Your task to perform on an android device: check battery use Image 0: 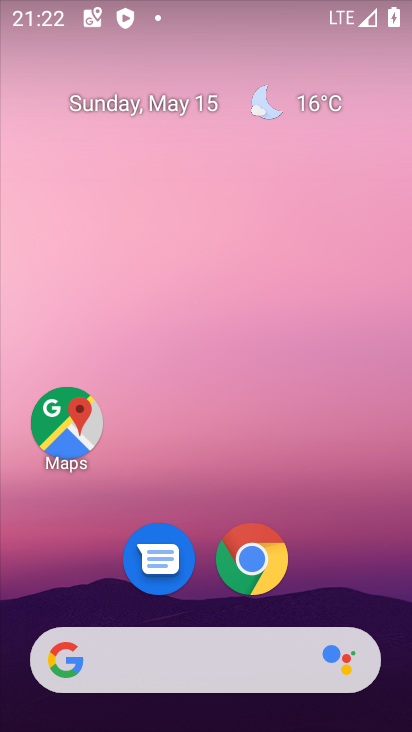
Step 0: drag from (183, 490) to (87, 23)
Your task to perform on an android device: check battery use Image 1: 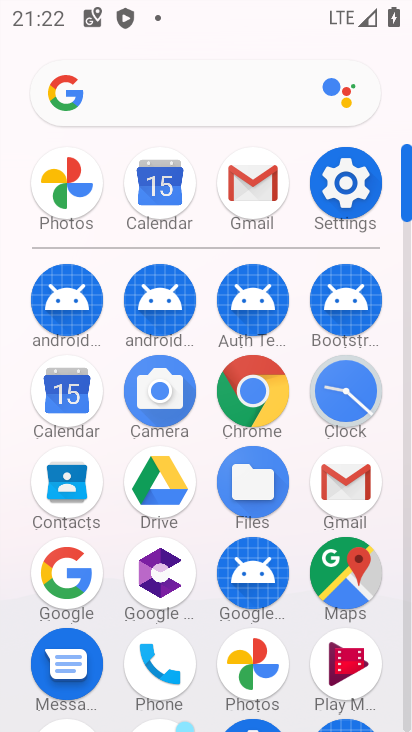
Step 1: click (342, 189)
Your task to perform on an android device: check battery use Image 2: 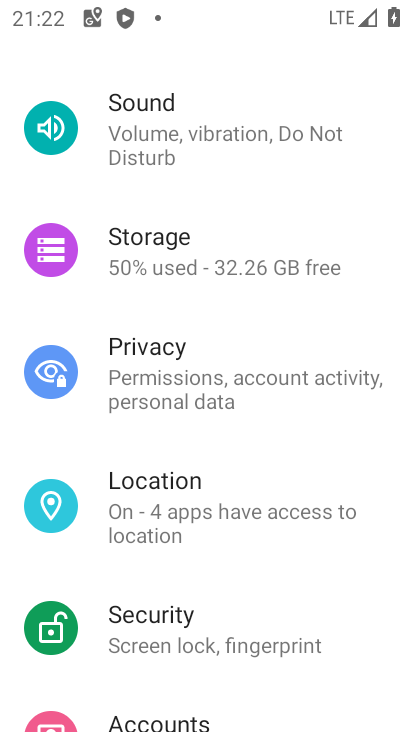
Step 2: drag from (225, 228) to (259, 586)
Your task to perform on an android device: check battery use Image 3: 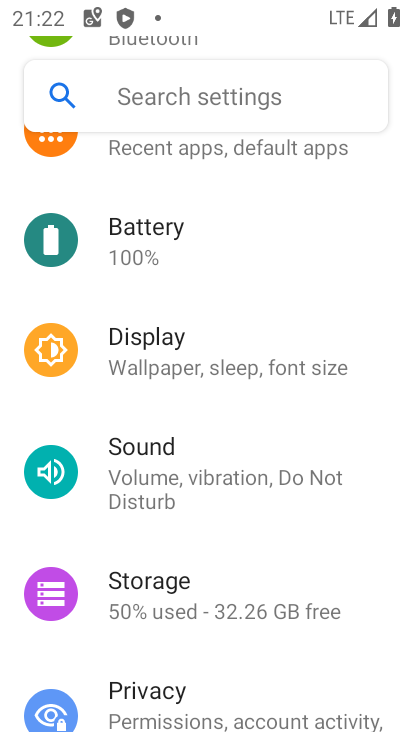
Step 3: click (141, 240)
Your task to perform on an android device: check battery use Image 4: 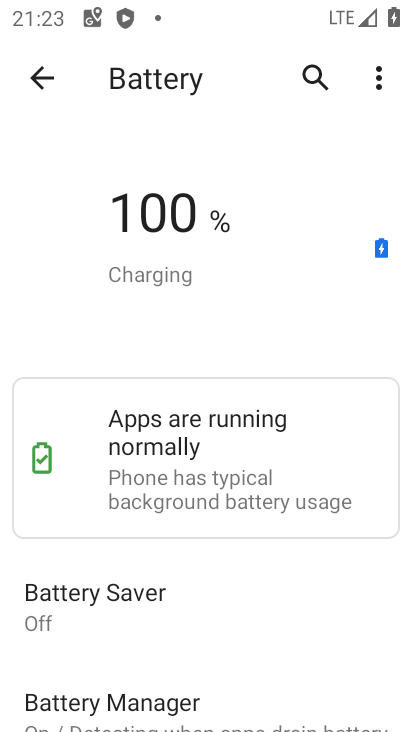
Step 4: task complete